Your task to perform on an android device: Turn on the flashlight Image 0: 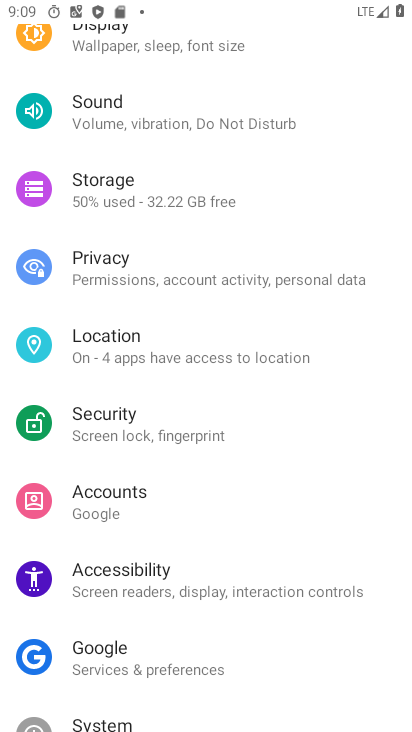
Step 0: drag from (237, 142) to (246, 588)
Your task to perform on an android device: Turn on the flashlight Image 1: 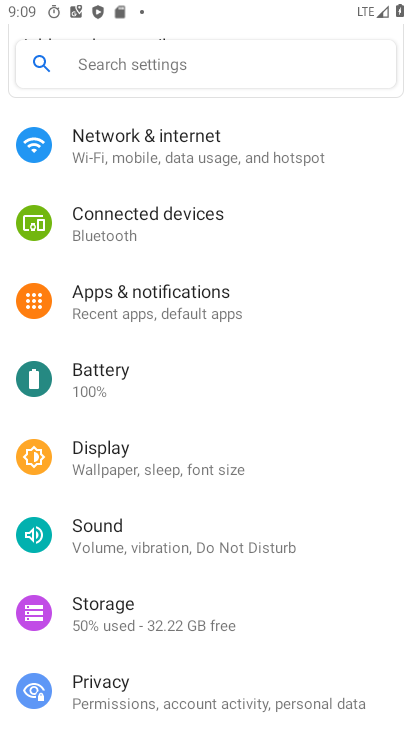
Step 1: drag from (269, 193) to (267, 598)
Your task to perform on an android device: Turn on the flashlight Image 2: 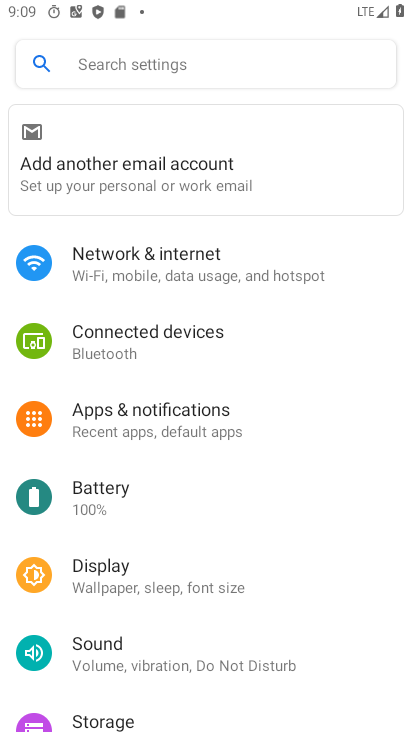
Step 2: click (194, 252)
Your task to perform on an android device: Turn on the flashlight Image 3: 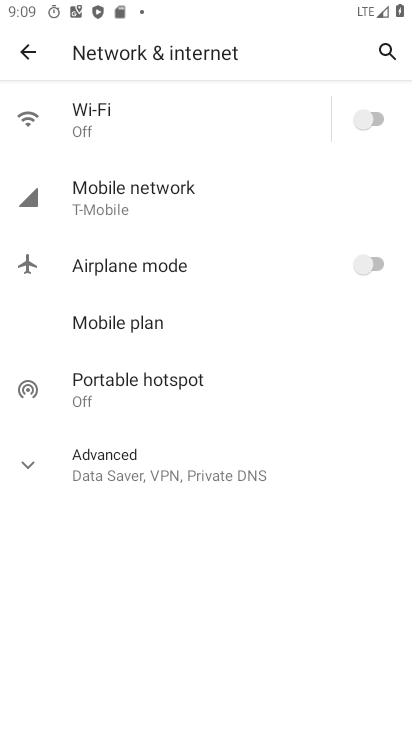
Step 3: click (36, 456)
Your task to perform on an android device: Turn on the flashlight Image 4: 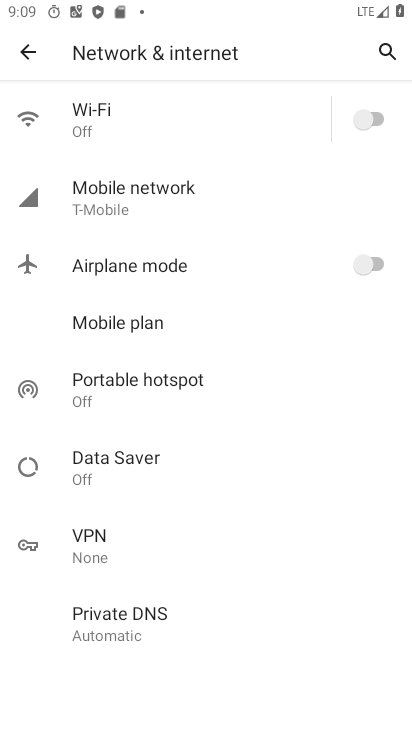
Step 4: task complete